Your task to perform on an android device: turn off improve location accuracy Image 0: 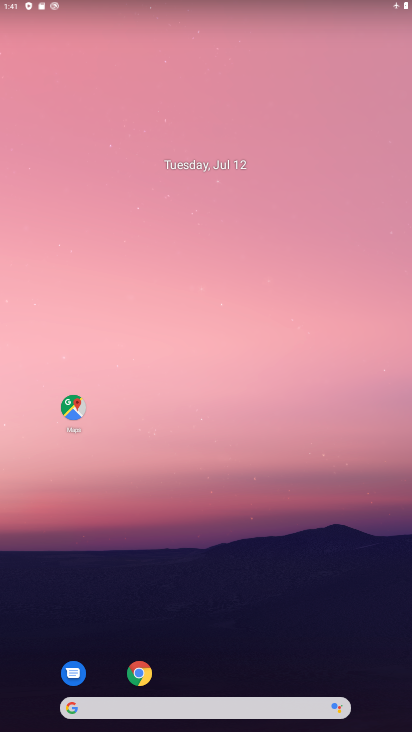
Step 0: drag from (196, 636) to (186, 309)
Your task to perform on an android device: turn off improve location accuracy Image 1: 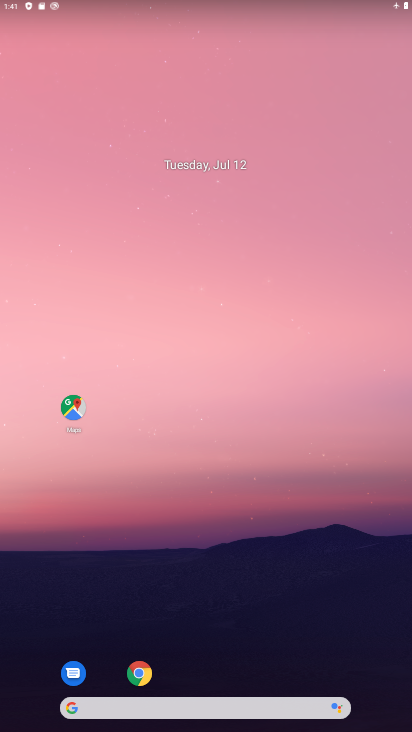
Step 1: drag from (180, 645) to (193, 431)
Your task to perform on an android device: turn off improve location accuracy Image 2: 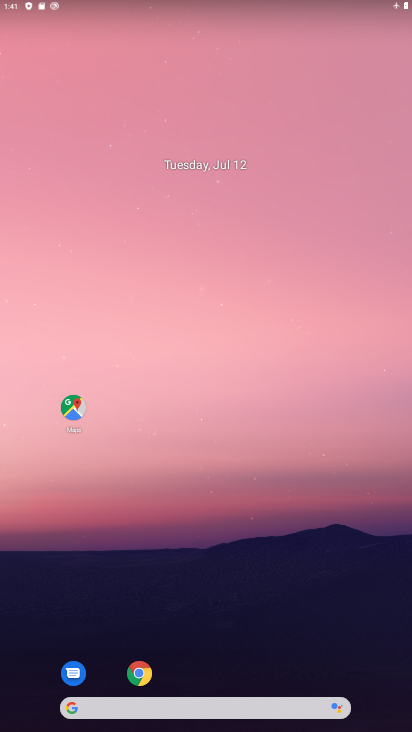
Step 2: drag from (166, 675) to (155, 261)
Your task to perform on an android device: turn off improve location accuracy Image 3: 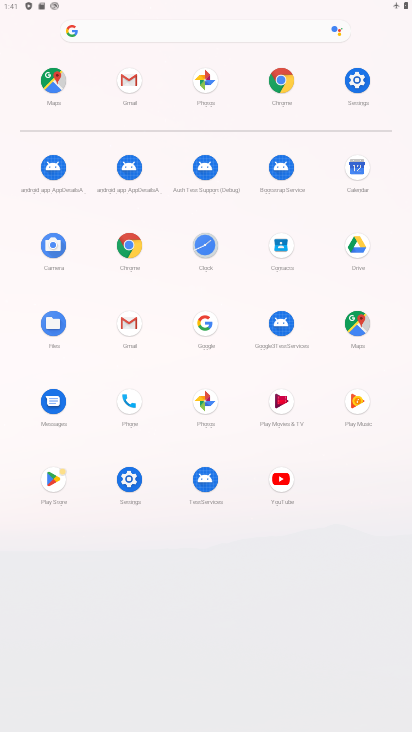
Step 3: click (359, 82)
Your task to perform on an android device: turn off improve location accuracy Image 4: 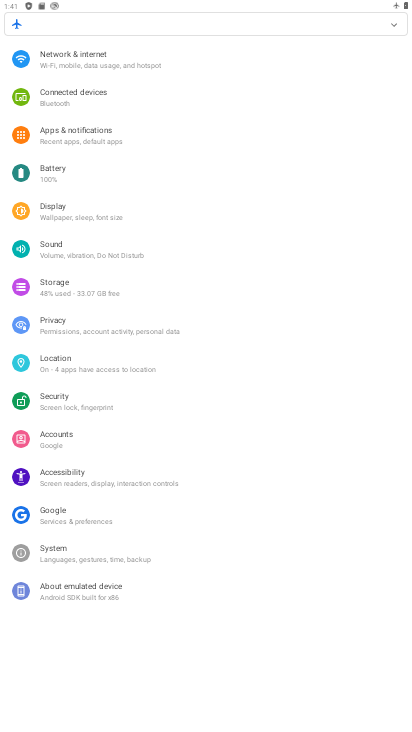
Step 4: click (72, 353)
Your task to perform on an android device: turn off improve location accuracy Image 5: 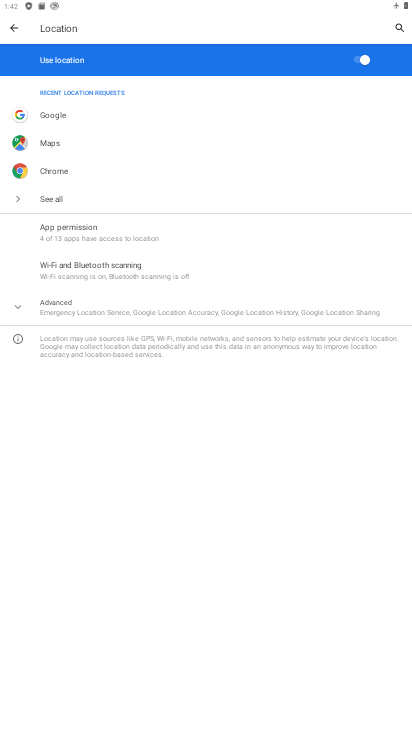
Step 5: click (73, 310)
Your task to perform on an android device: turn off improve location accuracy Image 6: 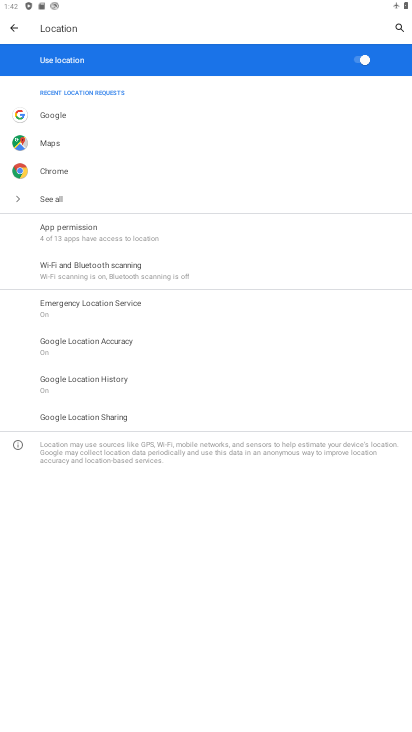
Step 6: click (103, 349)
Your task to perform on an android device: turn off improve location accuracy Image 7: 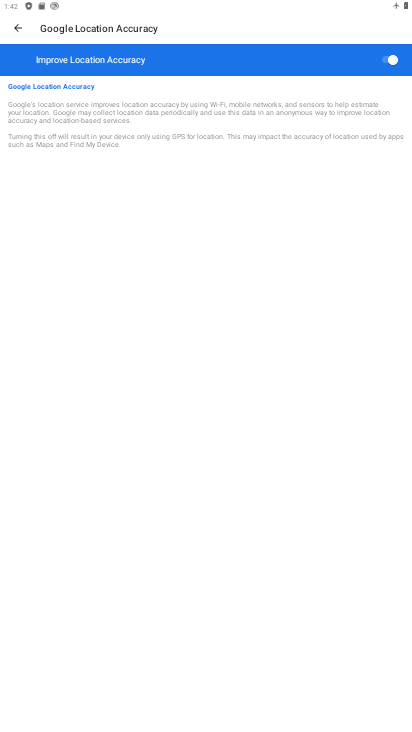
Step 7: click (375, 54)
Your task to perform on an android device: turn off improve location accuracy Image 8: 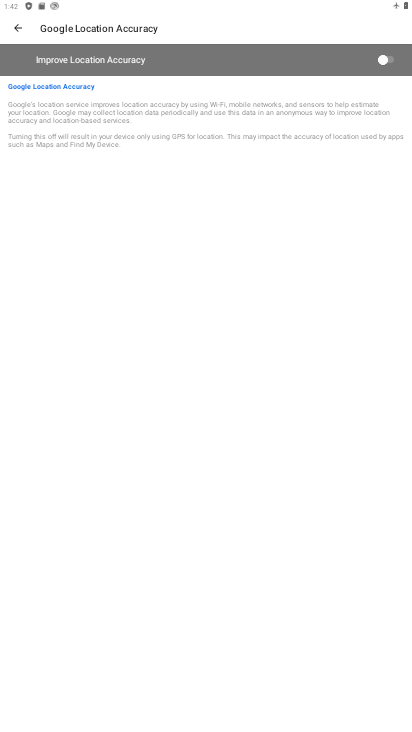
Step 8: task complete